Your task to perform on an android device: Search for pizza restaurants on Maps Image 0: 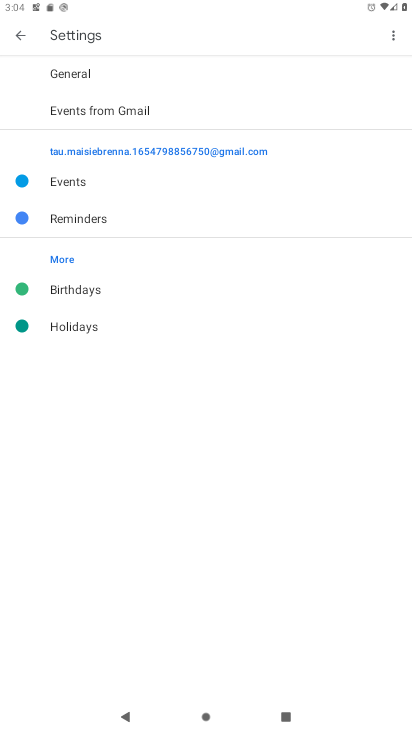
Step 0: press home button
Your task to perform on an android device: Search for pizza restaurants on Maps Image 1: 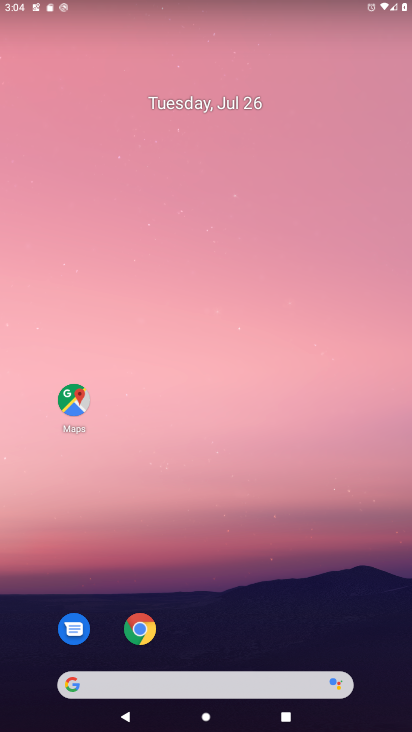
Step 1: click (61, 407)
Your task to perform on an android device: Search for pizza restaurants on Maps Image 2: 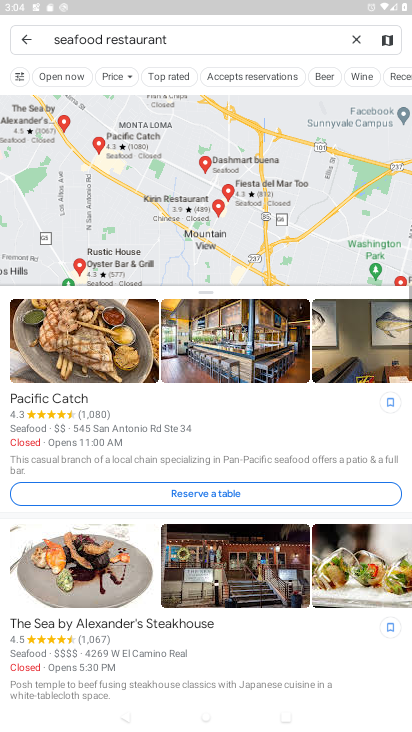
Step 2: click (352, 38)
Your task to perform on an android device: Search for pizza restaurants on Maps Image 3: 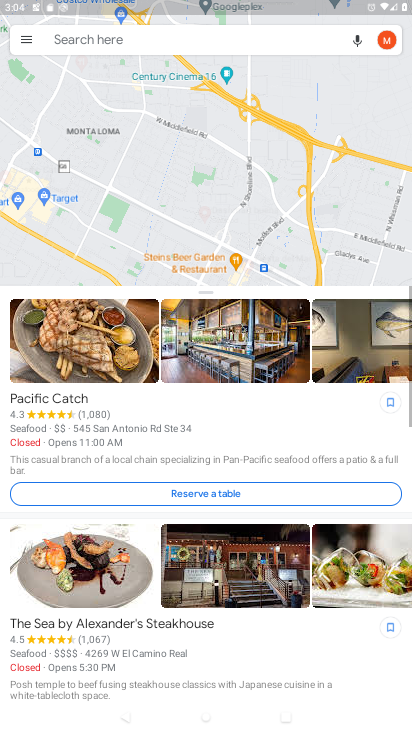
Step 3: click (247, 42)
Your task to perform on an android device: Search for pizza restaurants on Maps Image 4: 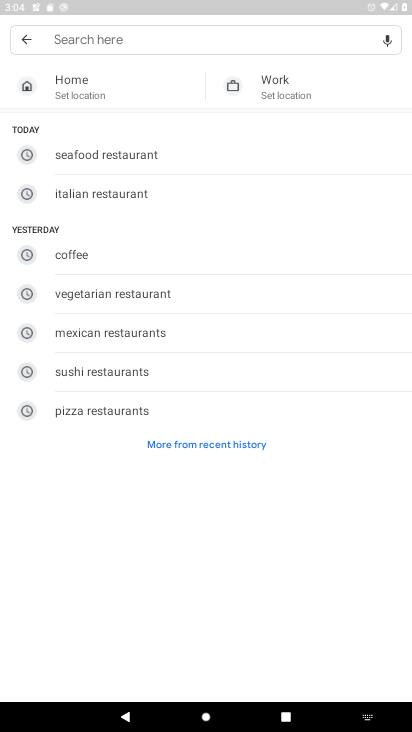
Step 4: click (102, 418)
Your task to perform on an android device: Search for pizza restaurants on Maps Image 5: 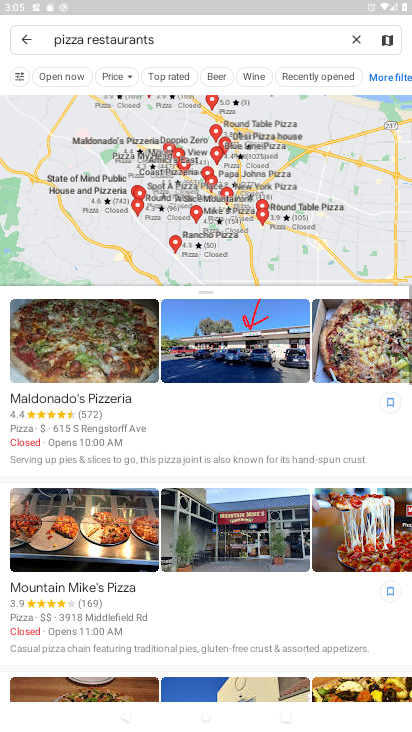
Step 5: task complete